Your task to perform on an android device: Go to Wikipedia Image 0: 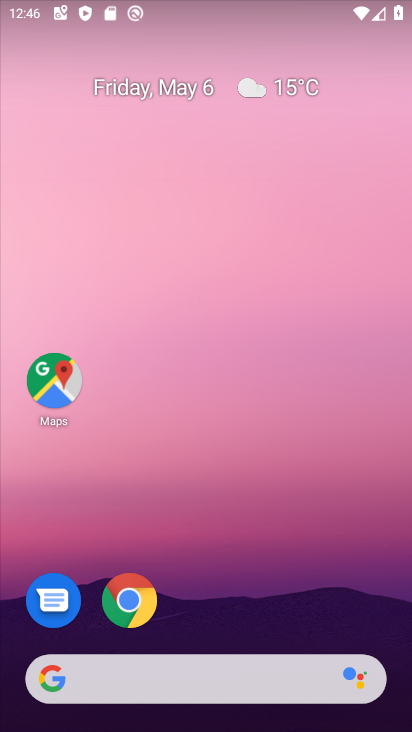
Step 0: drag from (336, 619) to (305, 180)
Your task to perform on an android device: Go to Wikipedia Image 1: 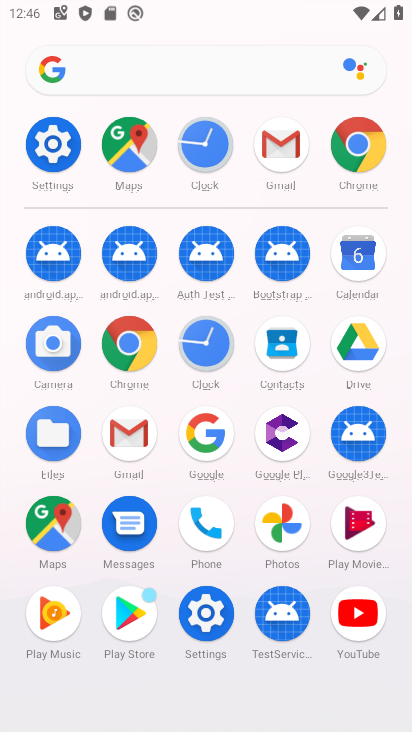
Step 1: click (371, 165)
Your task to perform on an android device: Go to Wikipedia Image 2: 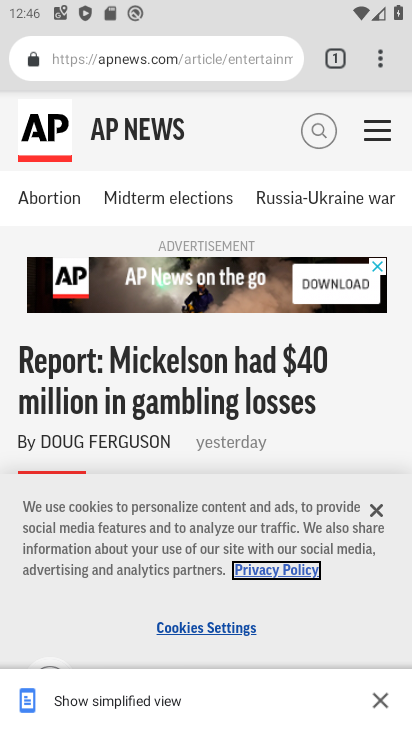
Step 2: press back button
Your task to perform on an android device: Go to Wikipedia Image 3: 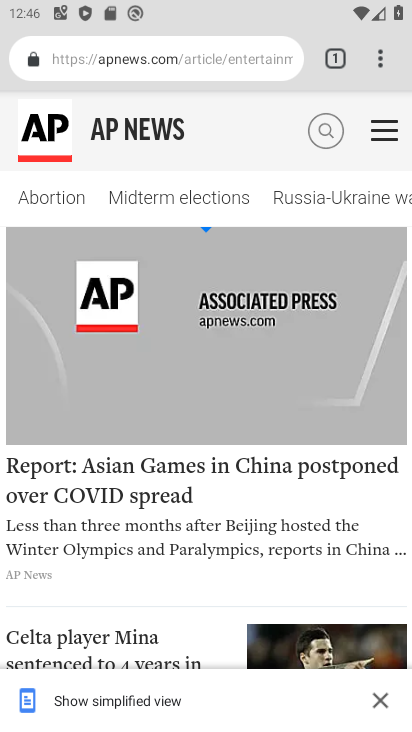
Step 3: press back button
Your task to perform on an android device: Go to Wikipedia Image 4: 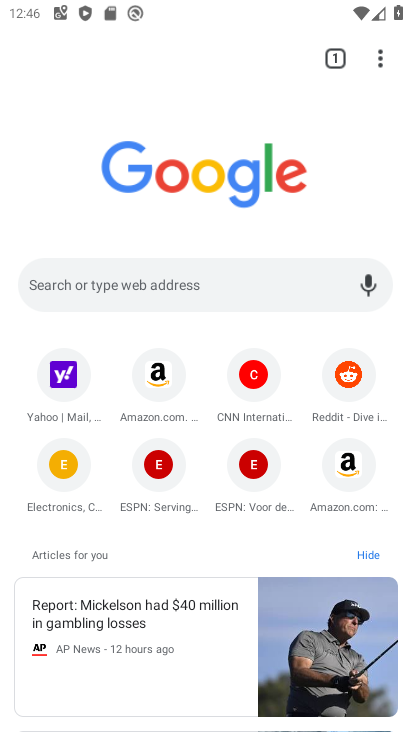
Step 4: click (162, 295)
Your task to perform on an android device: Go to Wikipedia Image 5: 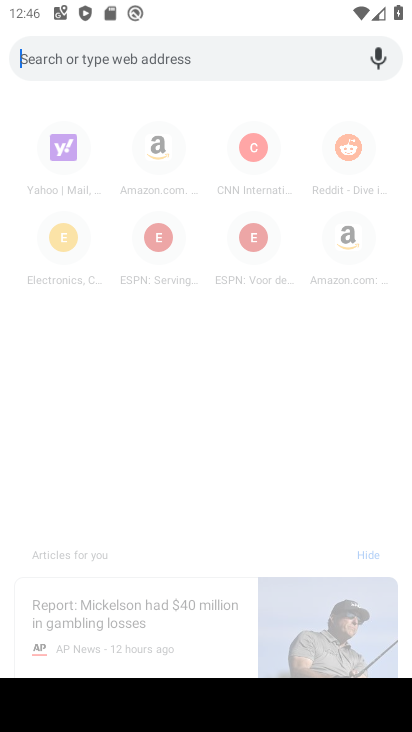
Step 5: type "wikipedia"
Your task to perform on an android device: Go to Wikipedia Image 6: 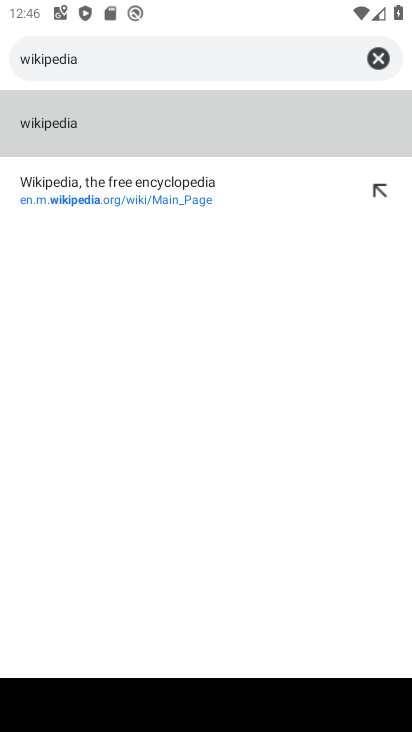
Step 6: click (155, 154)
Your task to perform on an android device: Go to Wikipedia Image 7: 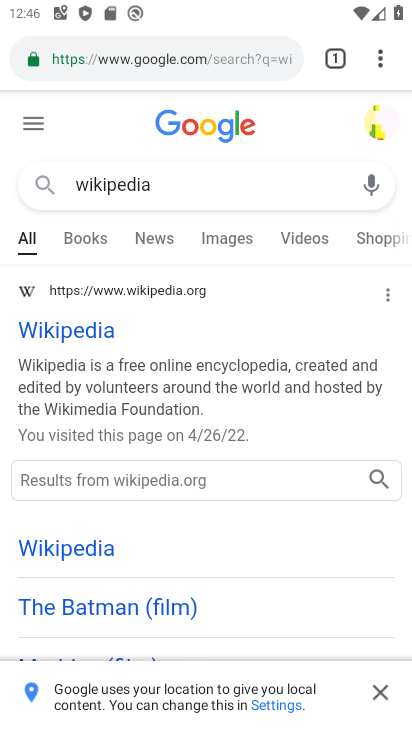
Step 7: task complete